Your task to perform on an android device: add a contact Image 0: 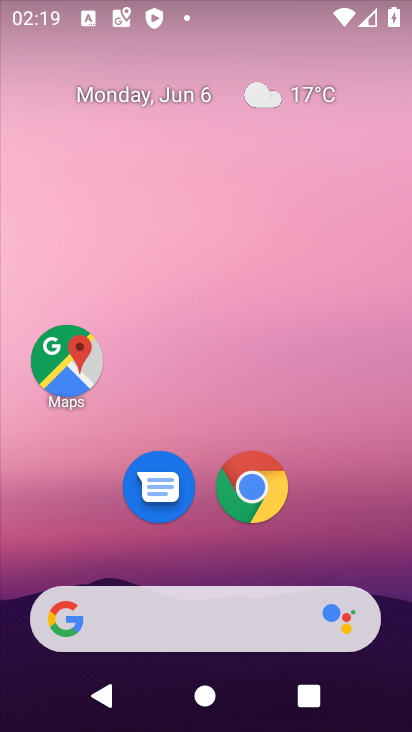
Step 0: drag from (404, 620) to (290, 129)
Your task to perform on an android device: add a contact Image 1: 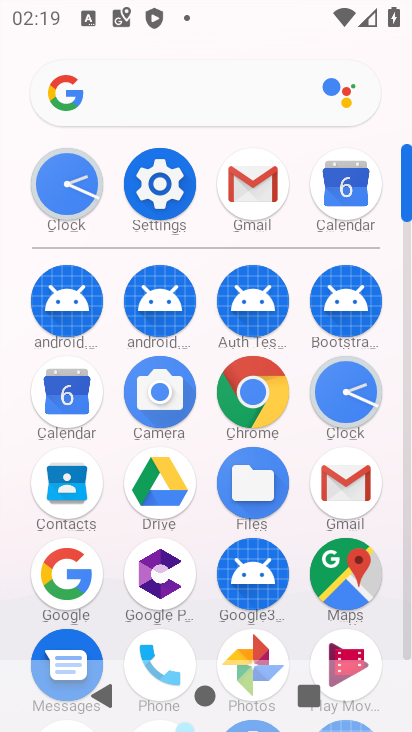
Step 1: click (64, 485)
Your task to perform on an android device: add a contact Image 2: 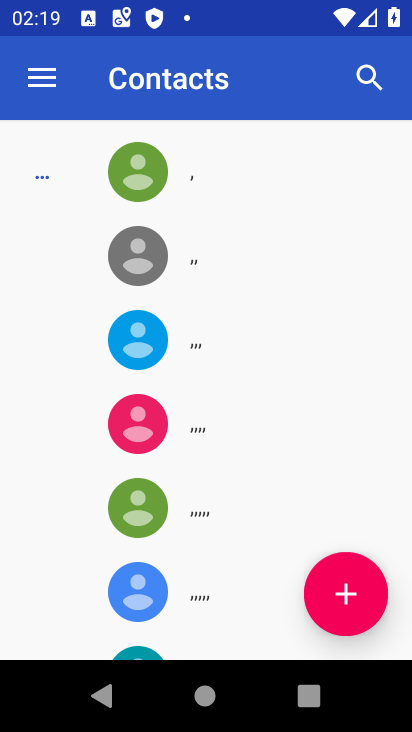
Step 2: click (346, 587)
Your task to perform on an android device: add a contact Image 3: 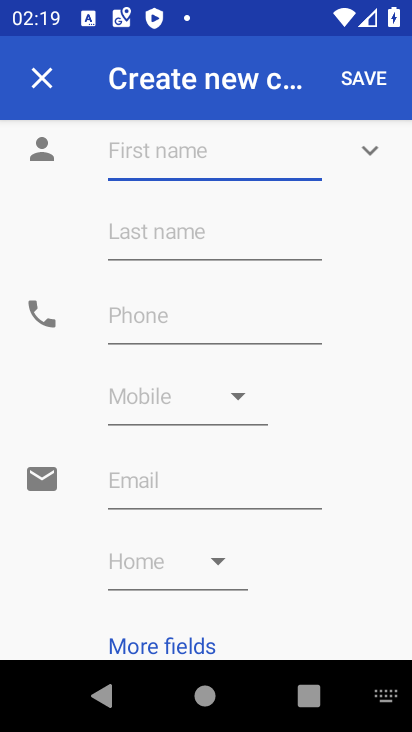
Step 3: type "rwueidgjgsgjd"
Your task to perform on an android device: add a contact Image 4: 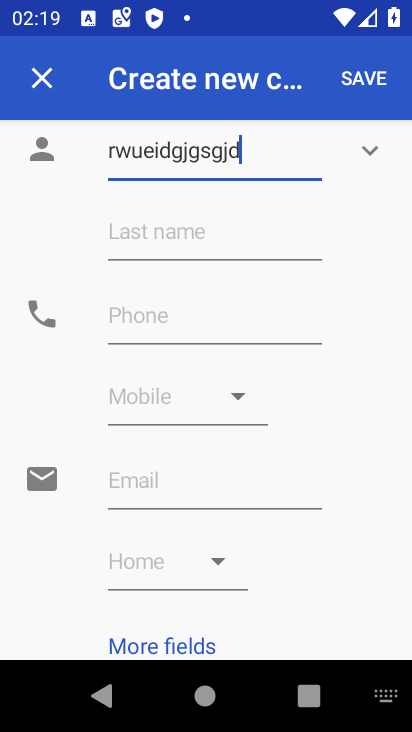
Step 4: click (154, 322)
Your task to perform on an android device: add a contact Image 5: 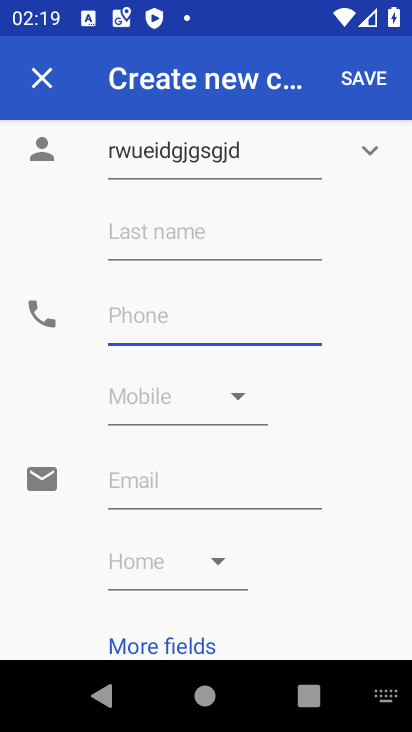
Step 5: type "205862006-68"
Your task to perform on an android device: add a contact Image 6: 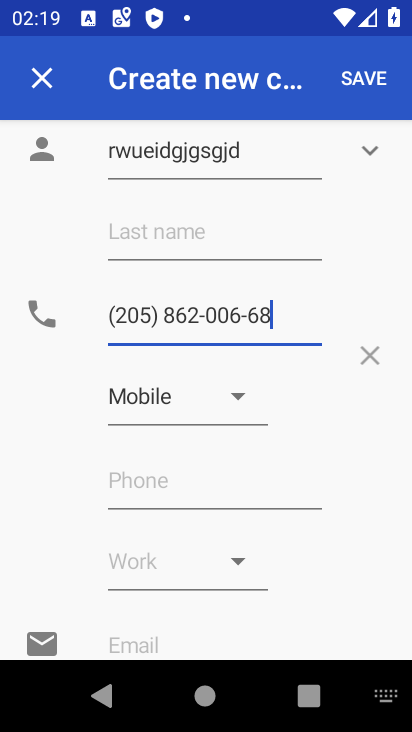
Step 6: click (368, 81)
Your task to perform on an android device: add a contact Image 7: 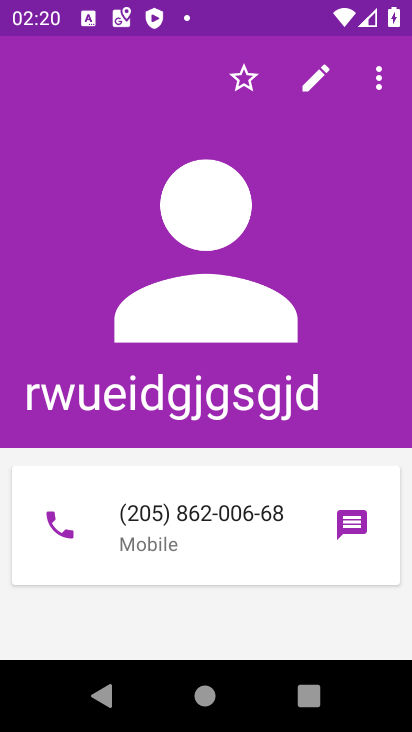
Step 7: task complete